Your task to perform on an android device: open chrome and create a bookmark for the current page Image 0: 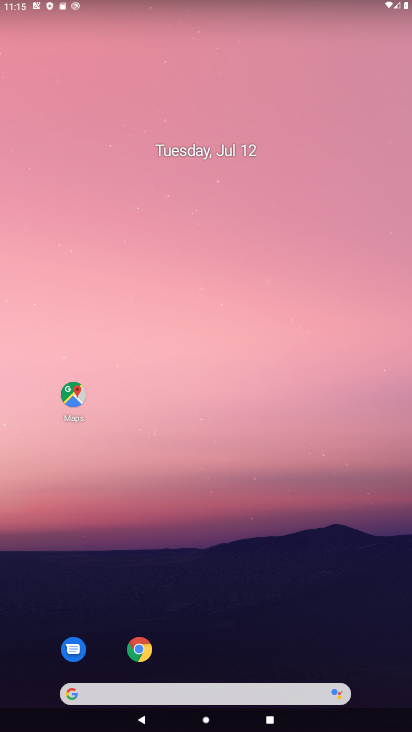
Step 0: click (141, 652)
Your task to perform on an android device: open chrome and create a bookmark for the current page Image 1: 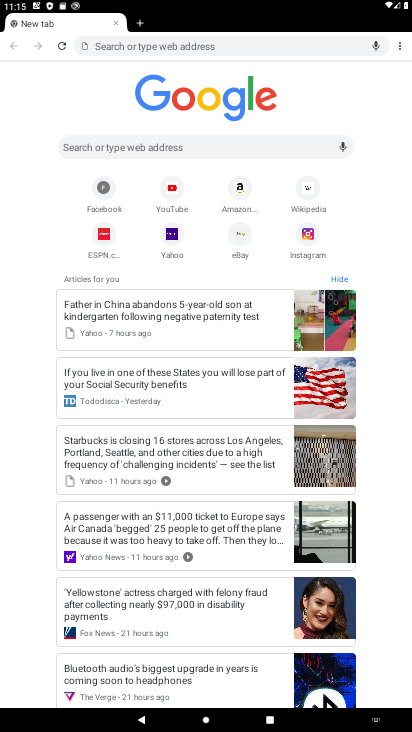
Step 1: click (399, 50)
Your task to perform on an android device: open chrome and create a bookmark for the current page Image 2: 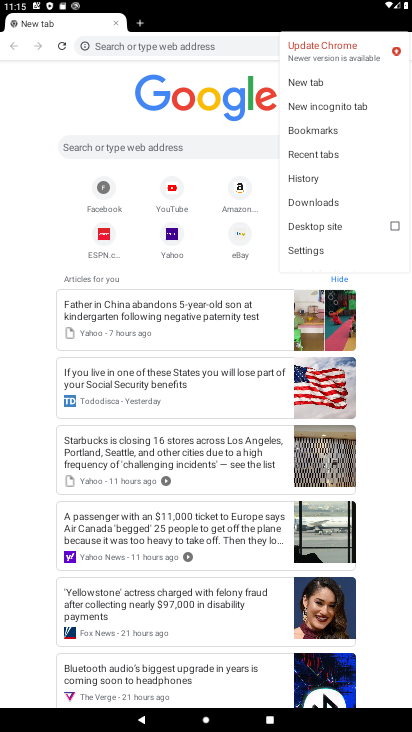
Step 2: click (233, 67)
Your task to perform on an android device: open chrome and create a bookmark for the current page Image 3: 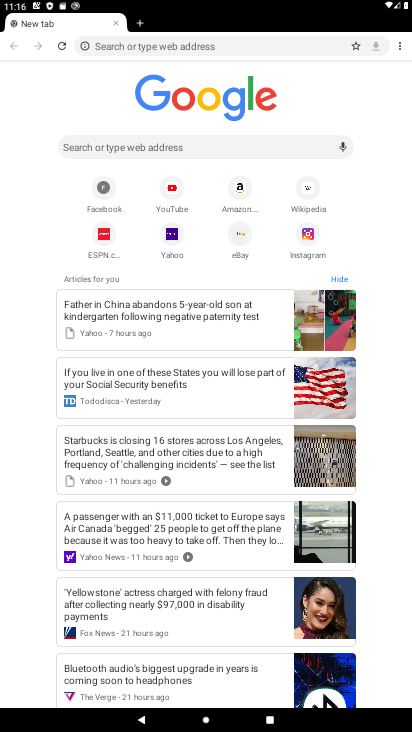
Step 3: click (352, 45)
Your task to perform on an android device: open chrome and create a bookmark for the current page Image 4: 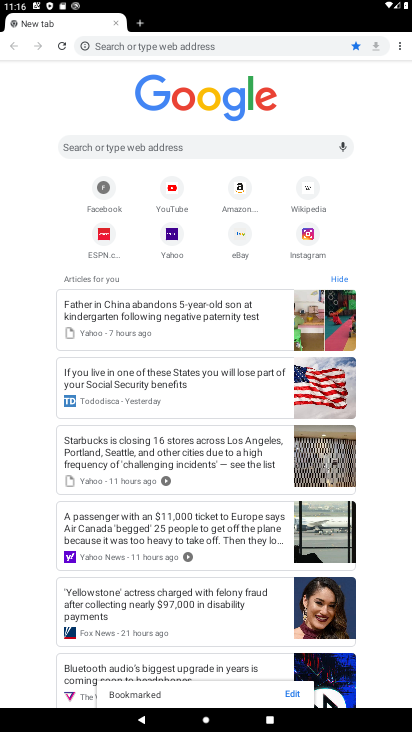
Step 4: task complete